Your task to perform on an android device: Go to display settings Image 0: 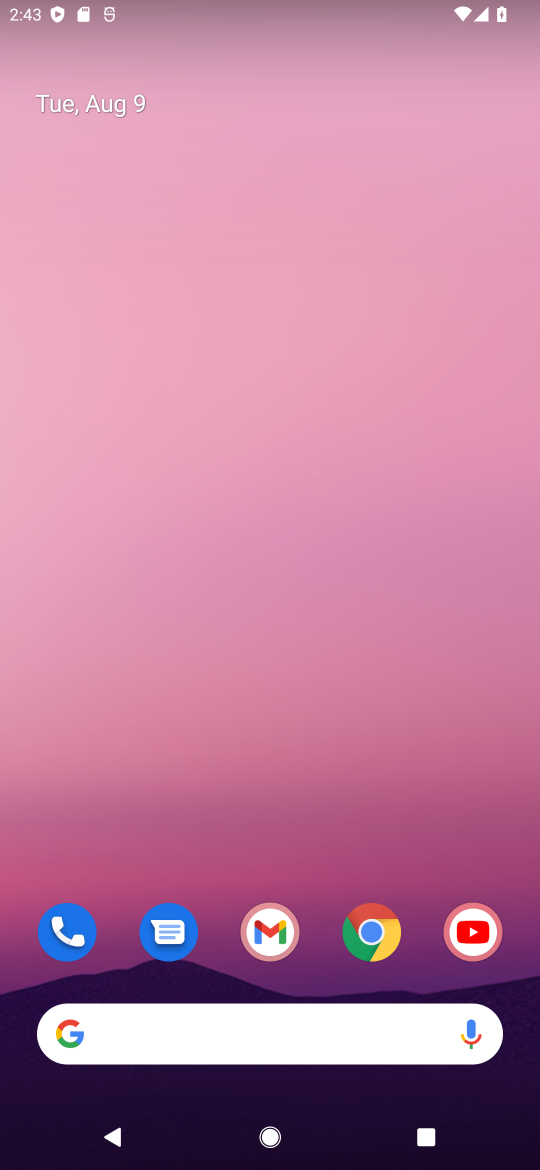
Step 0: drag from (316, 912) to (203, 363)
Your task to perform on an android device: Go to display settings Image 1: 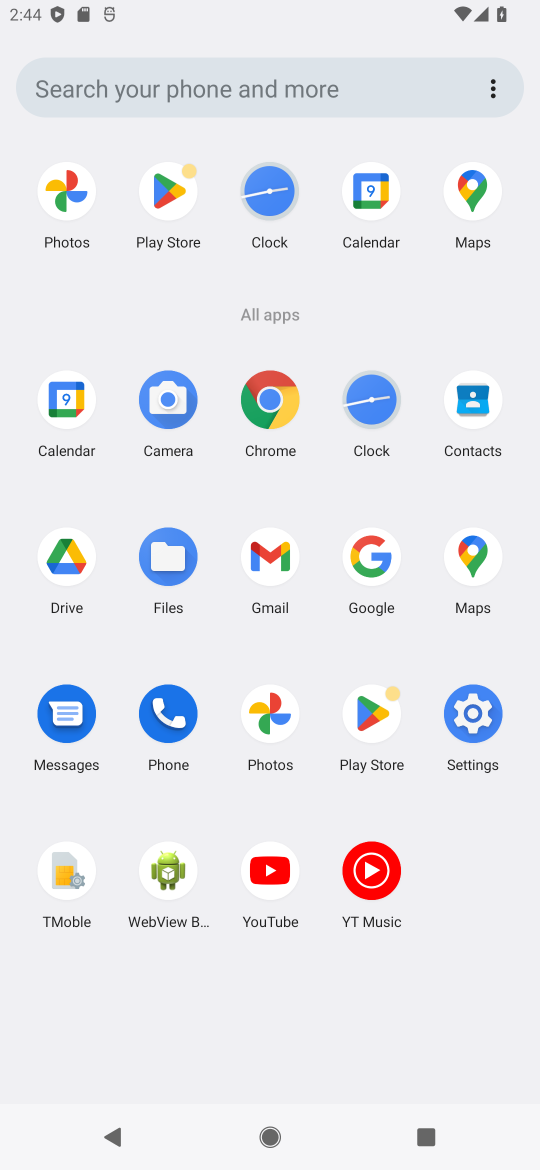
Step 1: click (448, 715)
Your task to perform on an android device: Go to display settings Image 2: 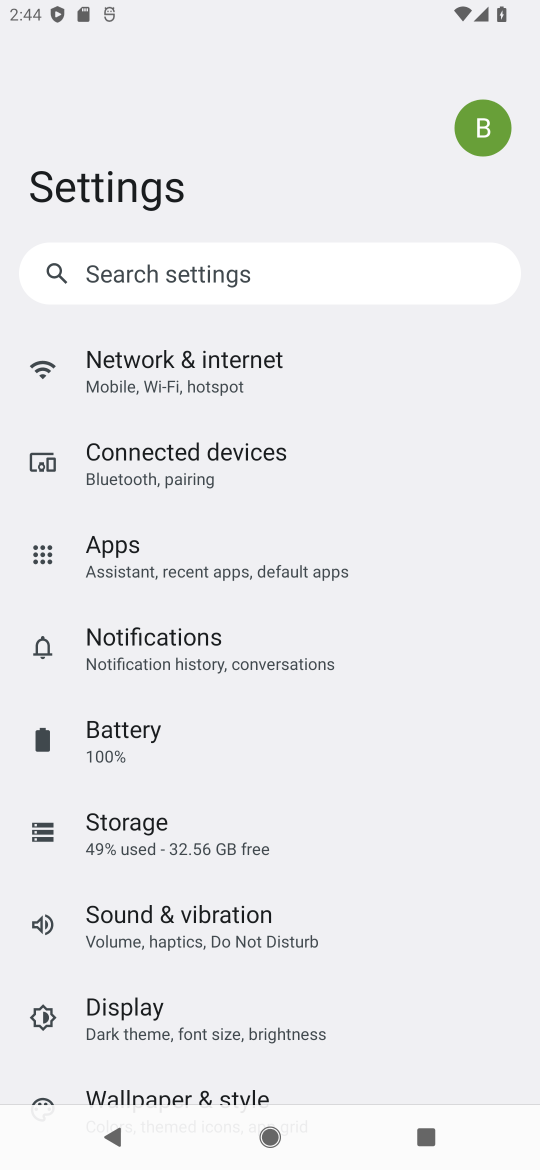
Step 2: click (149, 995)
Your task to perform on an android device: Go to display settings Image 3: 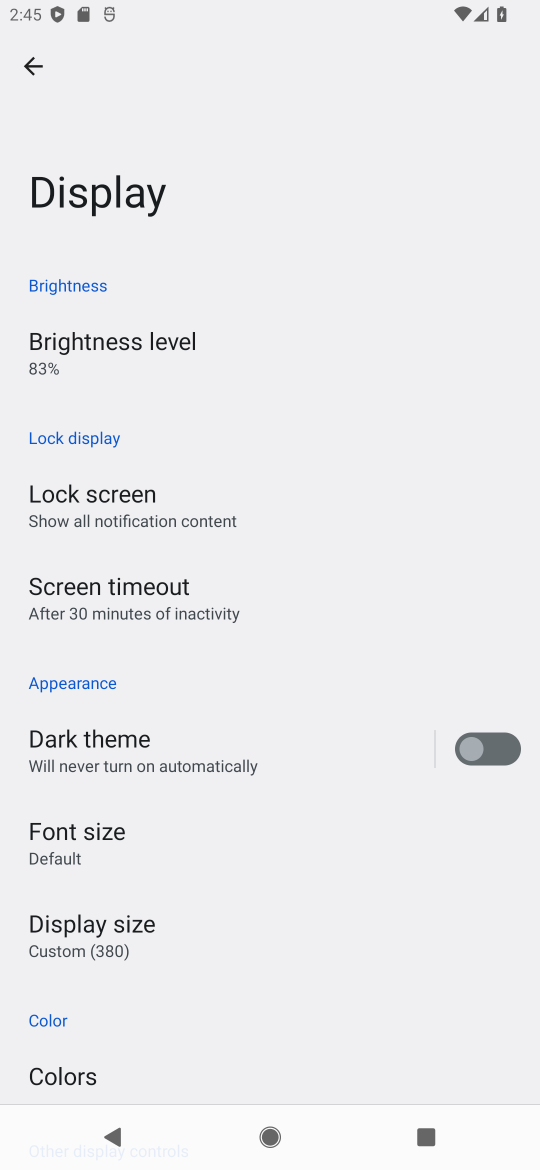
Step 3: task complete